Your task to perform on an android device: turn on bluetooth scan Image 0: 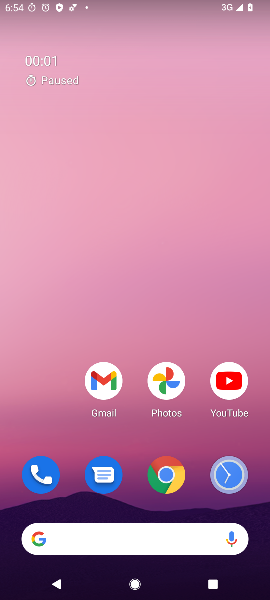
Step 0: drag from (198, 500) to (45, 34)
Your task to perform on an android device: turn on bluetooth scan Image 1: 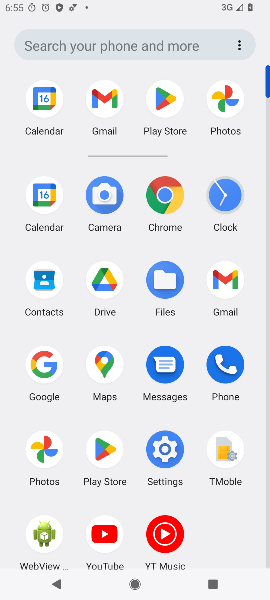
Step 1: click (166, 446)
Your task to perform on an android device: turn on bluetooth scan Image 2: 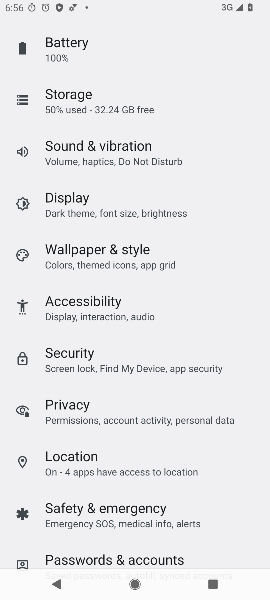
Step 2: task complete